Your task to perform on an android device: Show me popular games on the Play Store Image 0: 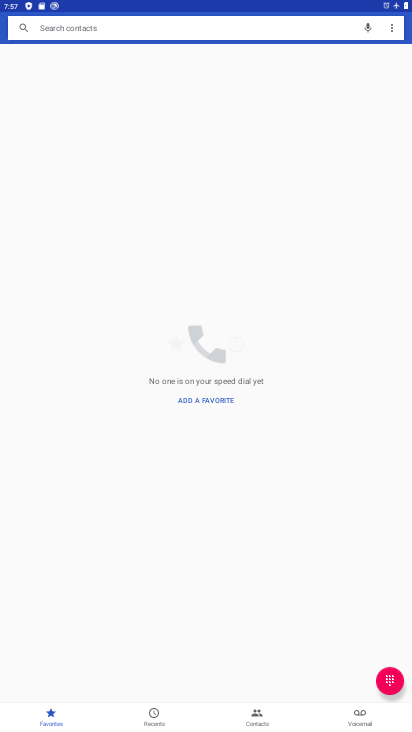
Step 0: press home button
Your task to perform on an android device: Show me popular games on the Play Store Image 1: 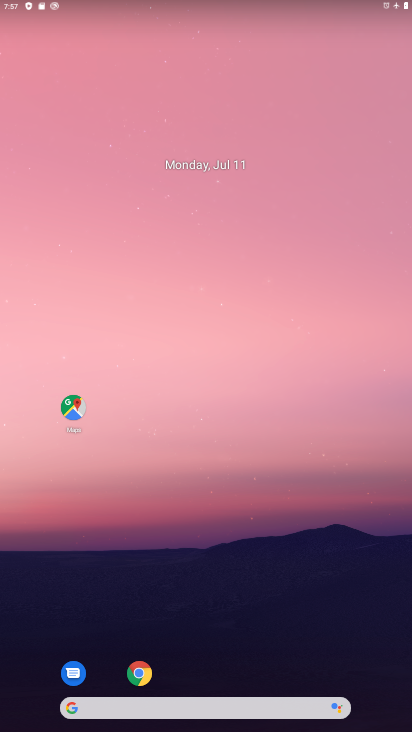
Step 1: drag from (258, 631) to (248, 106)
Your task to perform on an android device: Show me popular games on the Play Store Image 2: 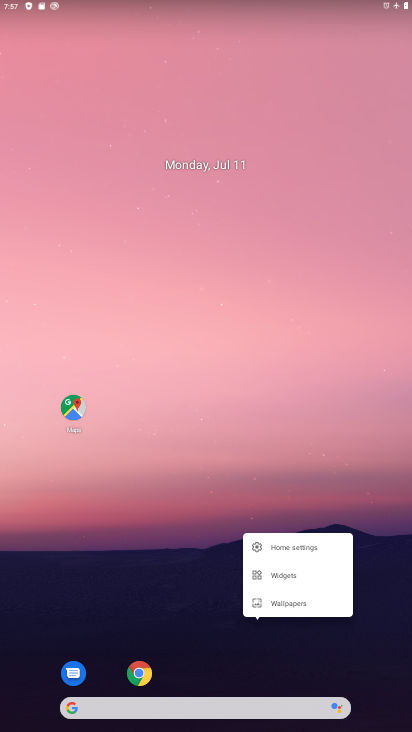
Step 2: click (188, 581)
Your task to perform on an android device: Show me popular games on the Play Store Image 3: 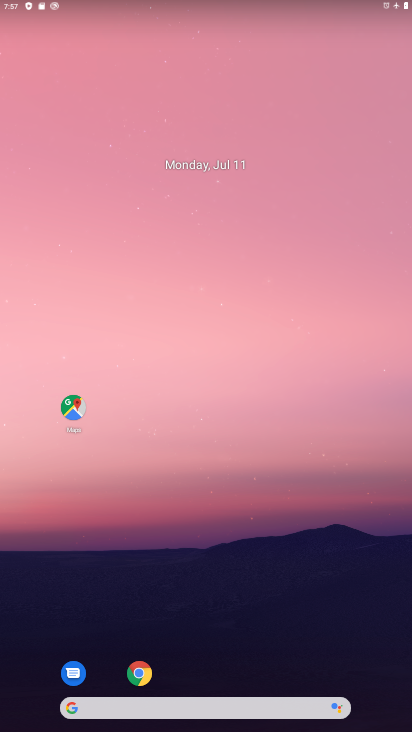
Step 3: drag from (188, 579) to (184, 84)
Your task to perform on an android device: Show me popular games on the Play Store Image 4: 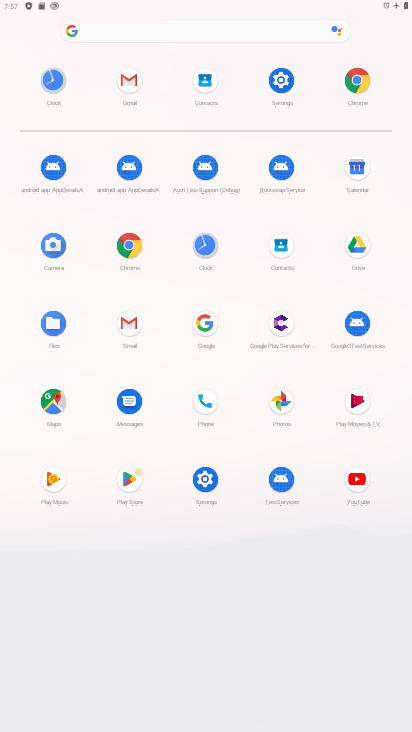
Step 4: click (131, 477)
Your task to perform on an android device: Show me popular games on the Play Store Image 5: 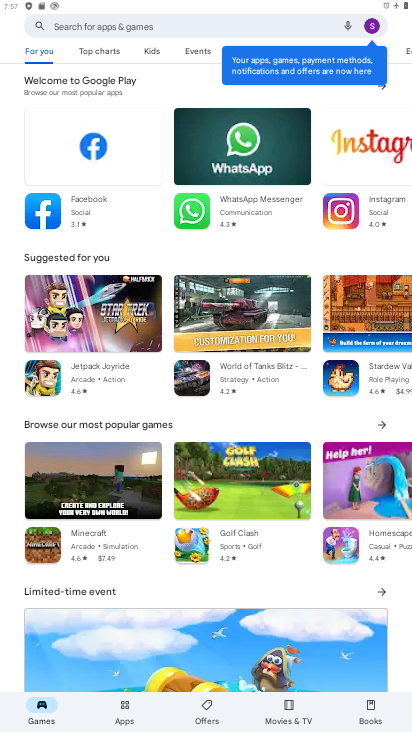
Step 5: task complete